Your task to perform on an android device: Open calendar and show me the third week of next month Image 0: 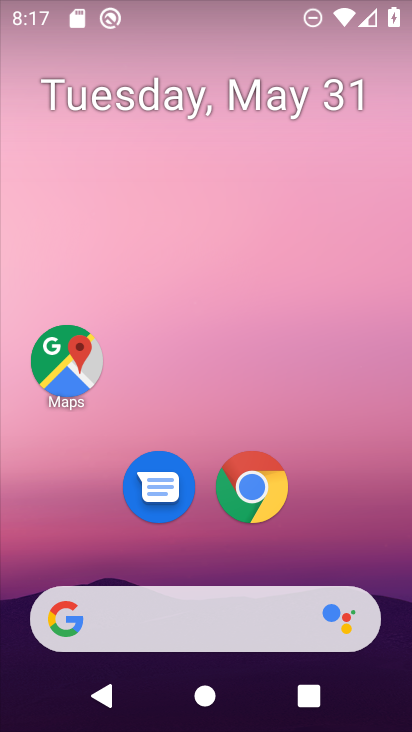
Step 0: press home button
Your task to perform on an android device: Open calendar and show me the third week of next month Image 1: 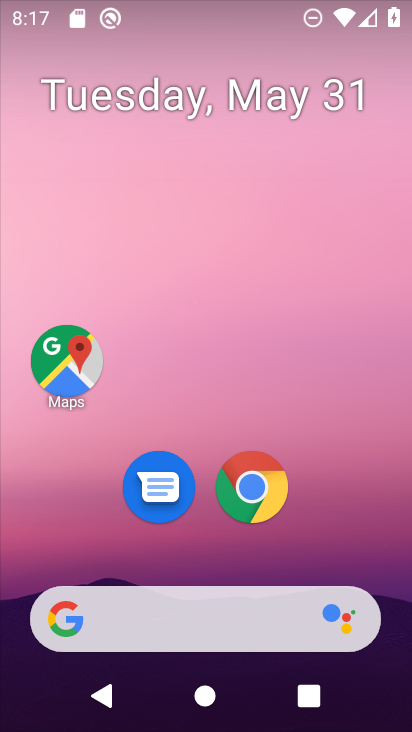
Step 1: drag from (138, 721) to (167, 64)
Your task to perform on an android device: Open calendar and show me the third week of next month Image 2: 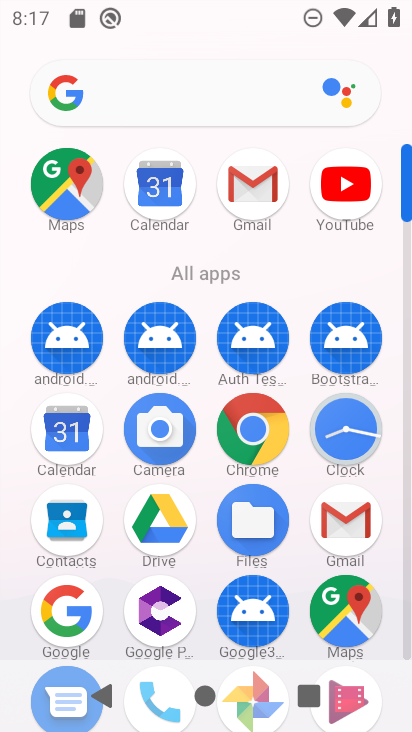
Step 2: click (158, 197)
Your task to perform on an android device: Open calendar and show me the third week of next month Image 3: 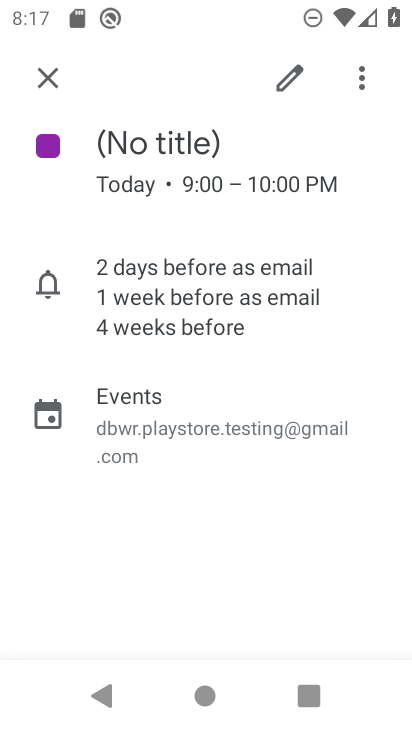
Step 3: click (44, 74)
Your task to perform on an android device: Open calendar and show me the third week of next month Image 4: 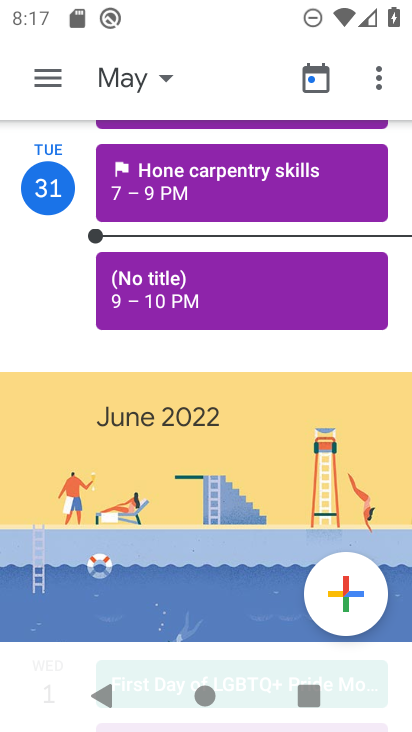
Step 4: click (165, 83)
Your task to perform on an android device: Open calendar and show me the third week of next month Image 5: 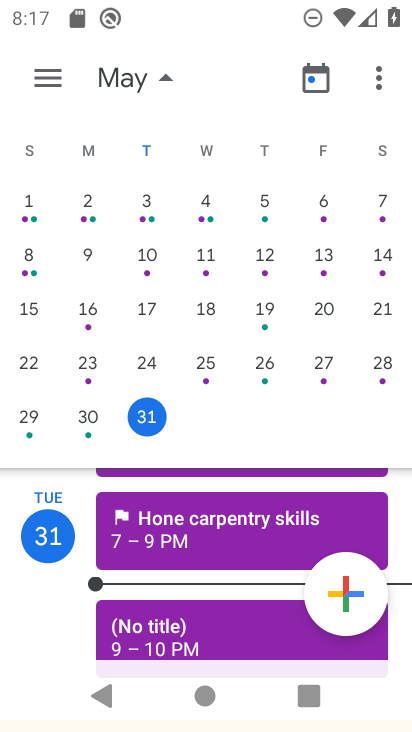
Step 5: drag from (378, 424) to (0, 297)
Your task to perform on an android device: Open calendar and show me the third week of next month Image 6: 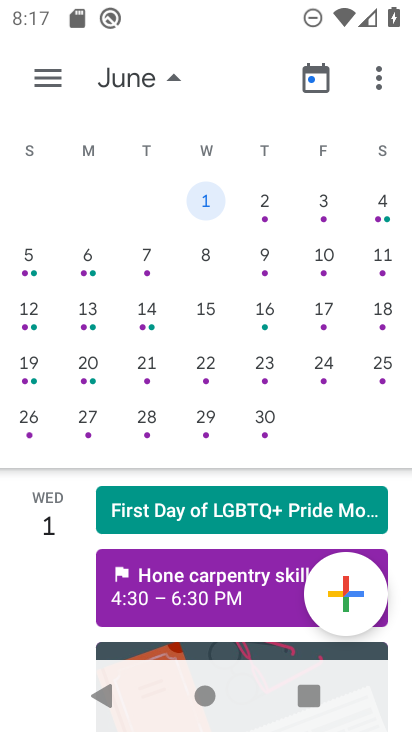
Step 6: click (150, 222)
Your task to perform on an android device: Open calendar and show me the third week of next month Image 7: 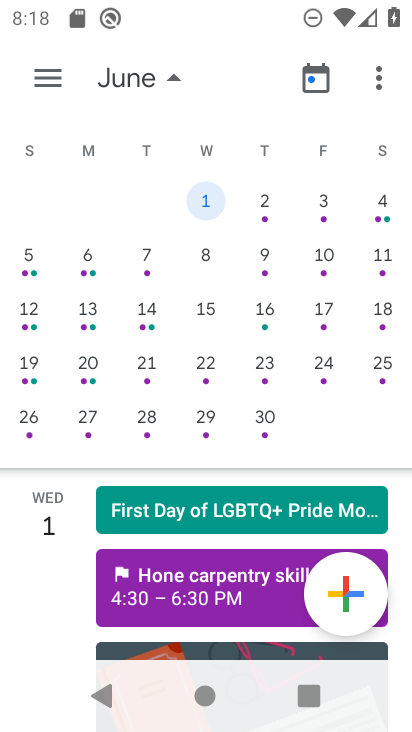
Step 7: click (36, 78)
Your task to perform on an android device: Open calendar and show me the third week of next month Image 8: 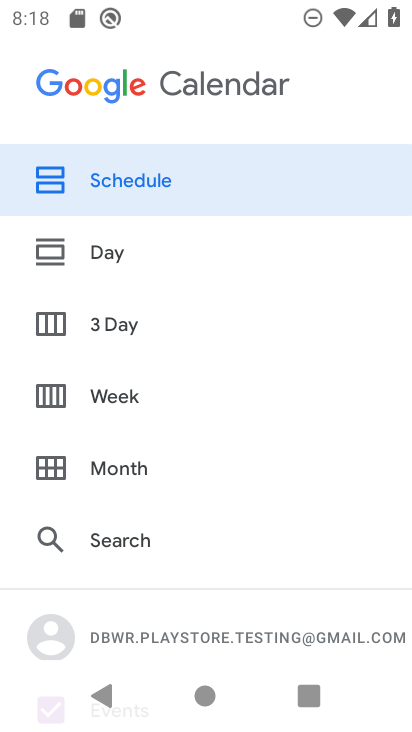
Step 8: click (60, 404)
Your task to perform on an android device: Open calendar and show me the third week of next month Image 9: 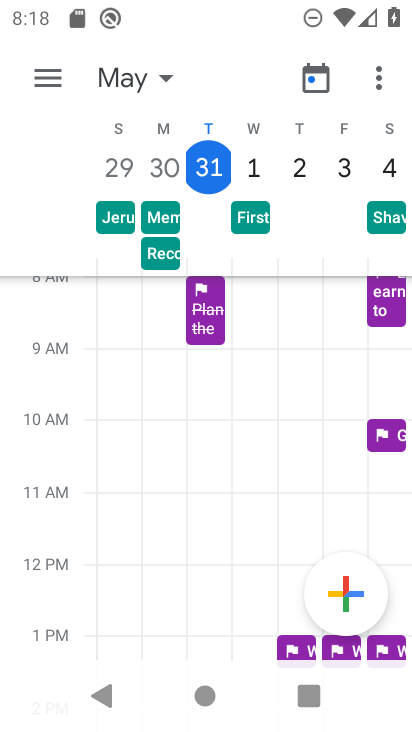
Step 9: task complete